Your task to perform on an android device: toggle pop-ups in chrome Image 0: 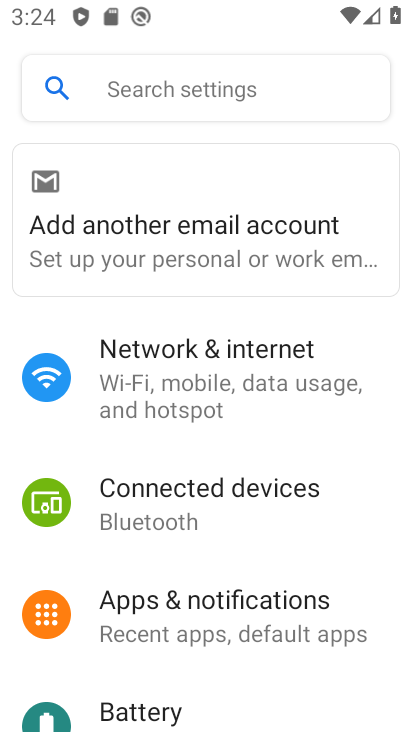
Step 0: drag from (199, 674) to (190, 281)
Your task to perform on an android device: toggle pop-ups in chrome Image 1: 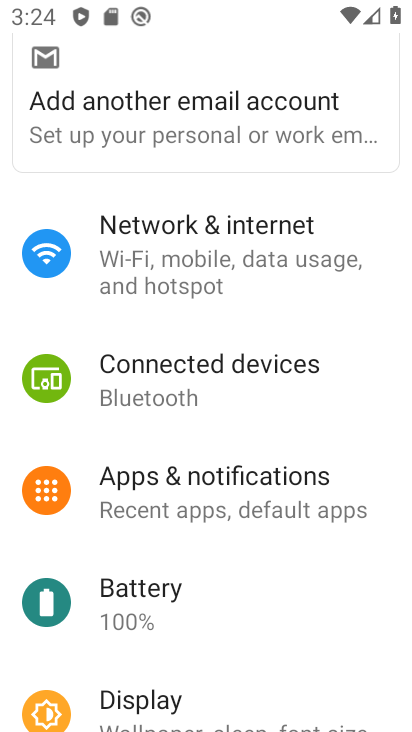
Step 1: press home button
Your task to perform on an android device: toggle pop-ups in chrome Image 2: 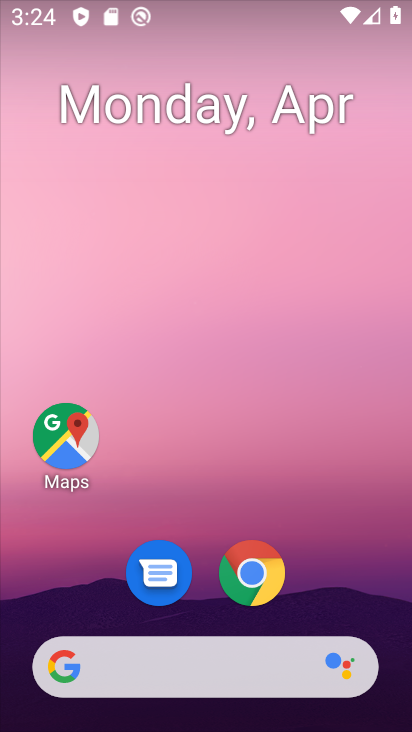
Step 2: click (258, 576)
Your task to perform on an android device: toggle pop-ups in chrome Image 3: 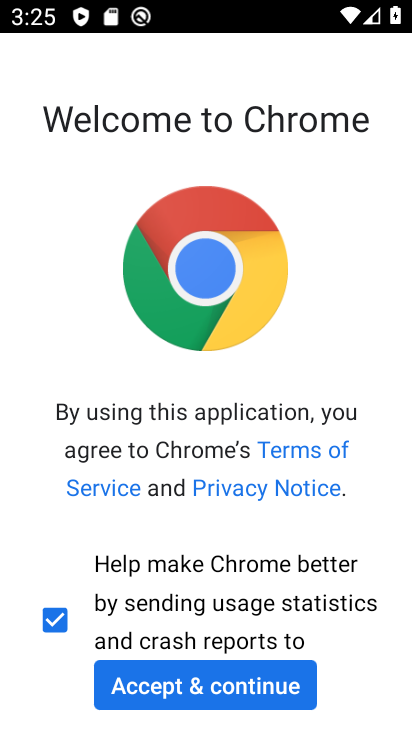
Step 3: click (208, 696)
Your task to perform on an android device: toggle pop-ups in chrome Image 4: 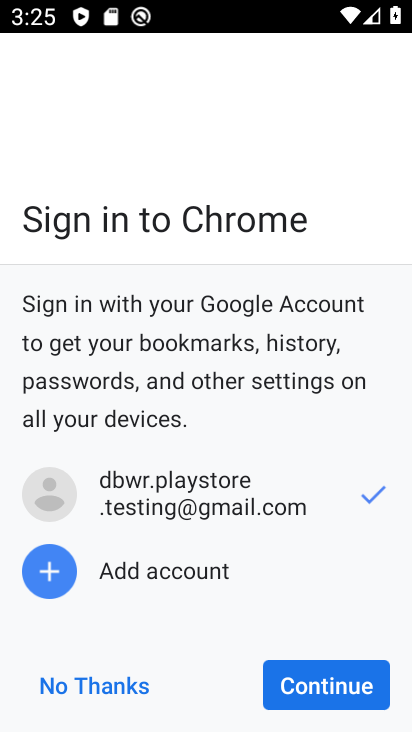
Step 4: click (279, 694)
Your task to perform on an android device: toggle pop-ups in chrome Image 5: 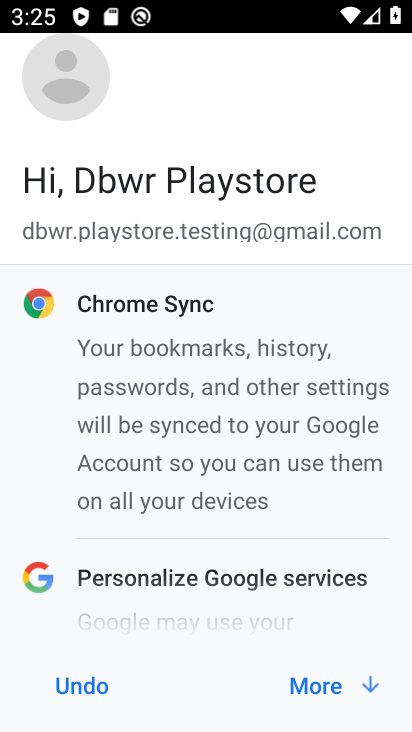
Step 5: click (308, 697)
Your task to perform on an android device: toggle pop-ups in chrome Image 6: 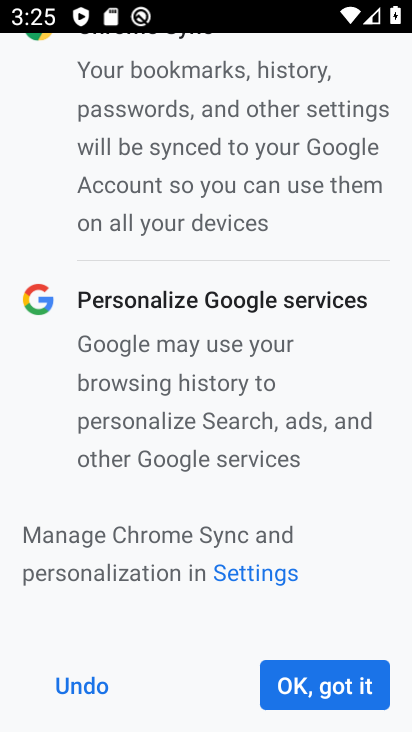
Step 6: click (307, 693)
Your task to perform on an android device: toggle pop-ups in chrome Image 7: 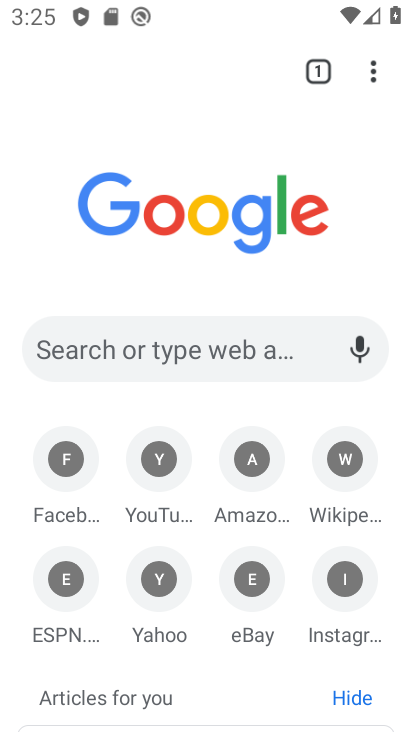
Step 7: click (369, 68)
Your task to perform on an android device: toggle pop-ups in chrome Image 8: 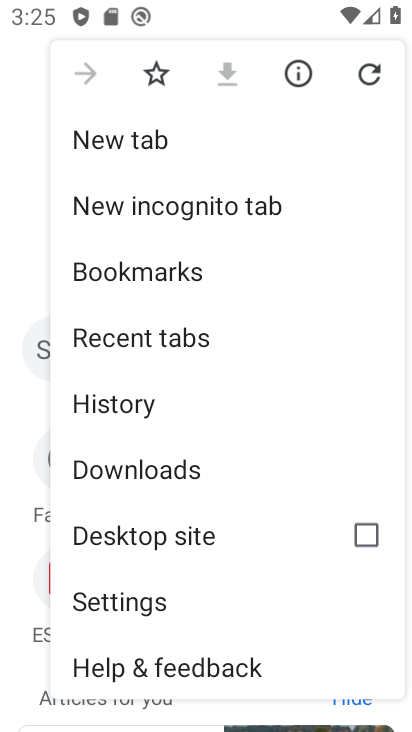
Step 8: click (98, 604)
Your task to perform on an android device: toggle pop-ups in chrome Image 9: 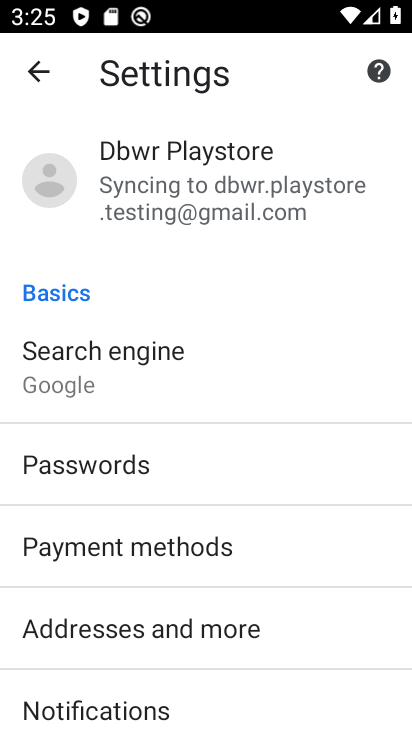
Step 9: drag from (171, 718) to (124, 326)
Your task to perform on an android device: toggle pop-ups in chrome Image 10: 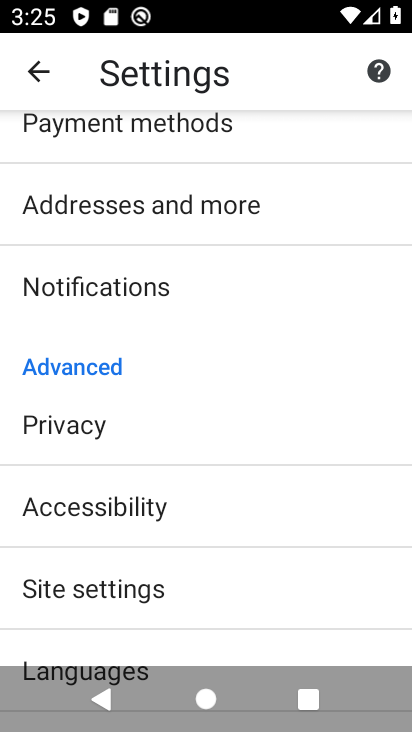
Step 10: click (103, 585)
Your task to perform on an android device: toggle pop-ups in chrome Image 11: 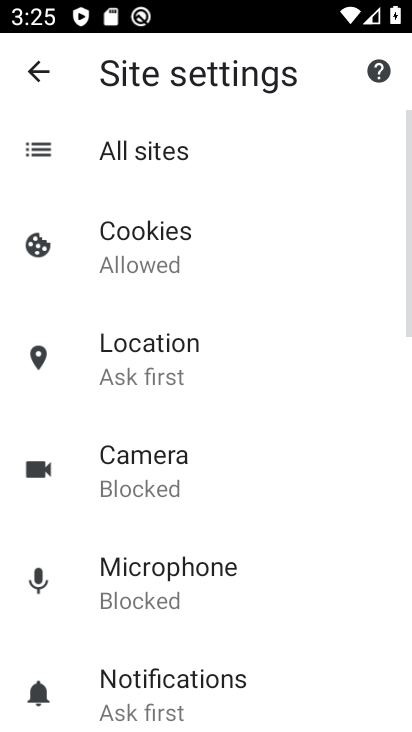
Step 11: drag from (155, 707) to (147, 383)
Your task to perform on an android device: toggle pop-ups in chrome Image 12: 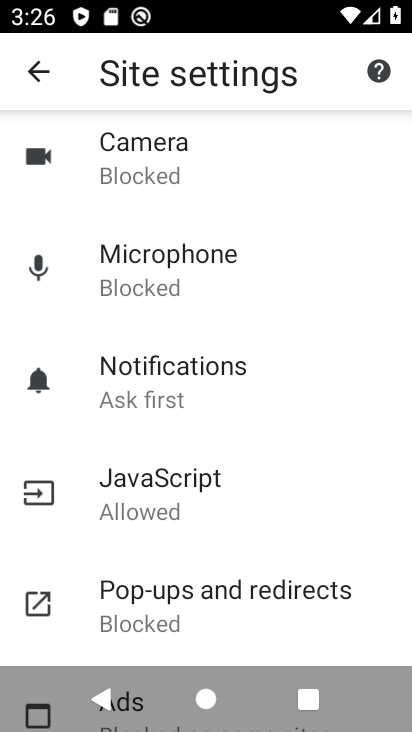
Step 12: click (168, 603)
Your task to perform on an android device: toggle pop-ups in chrome Image 13: 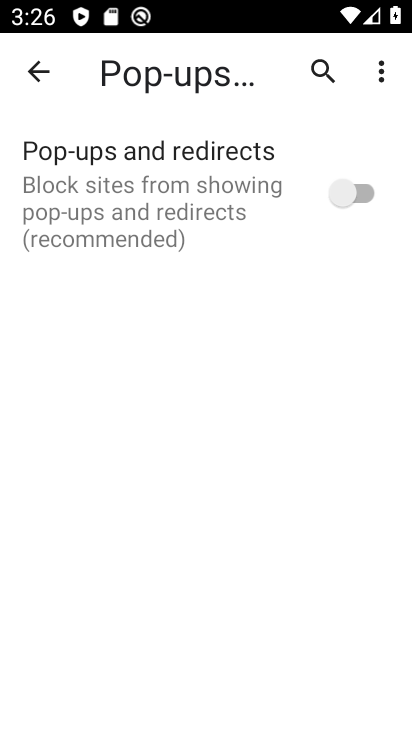
Step 13: click (365, 192)
Your task to perform on an android device: toggle pop-ups in chrome Image 14: 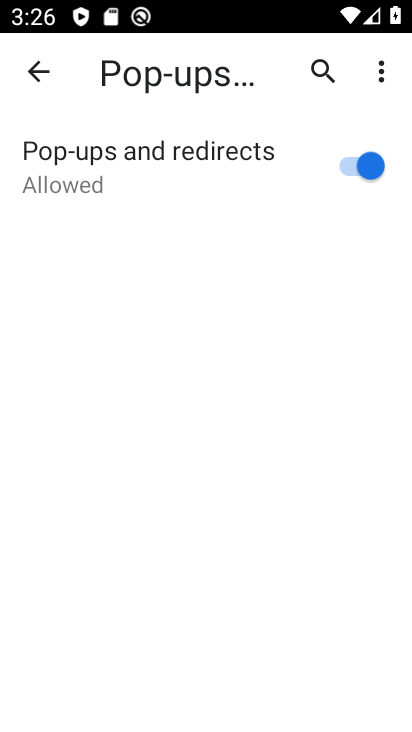
Step 14: task complete